Your task to perform on an android device: install app "Firefox Browser" Image 0: 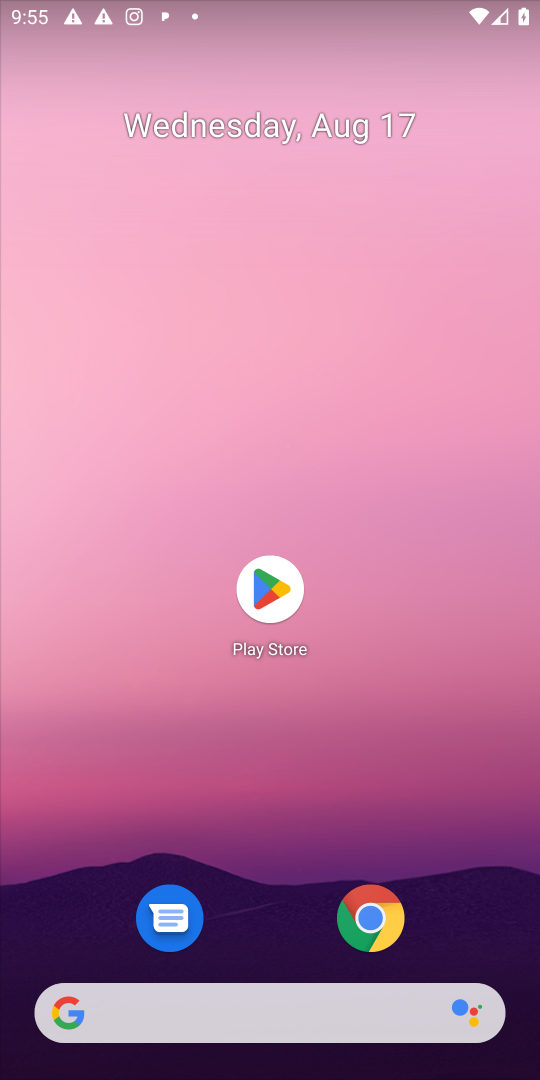
Step 0: press home button
Your task to perform on an android device: install app "Firefox Browser" Image 1: 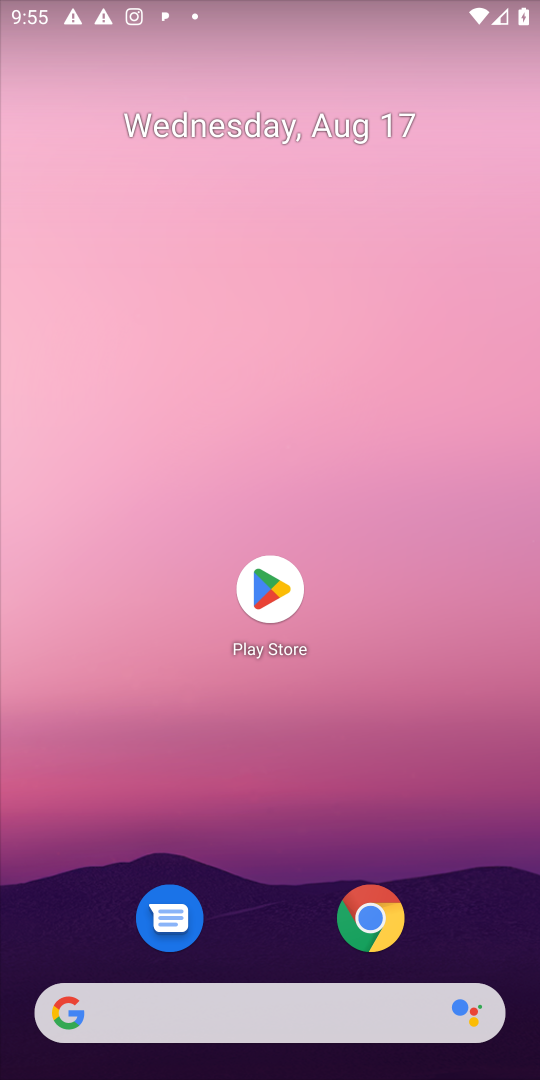
Step 1: click (265, 587)
Your task to perform on an android device: install app "Firefox Browser" Image 2: 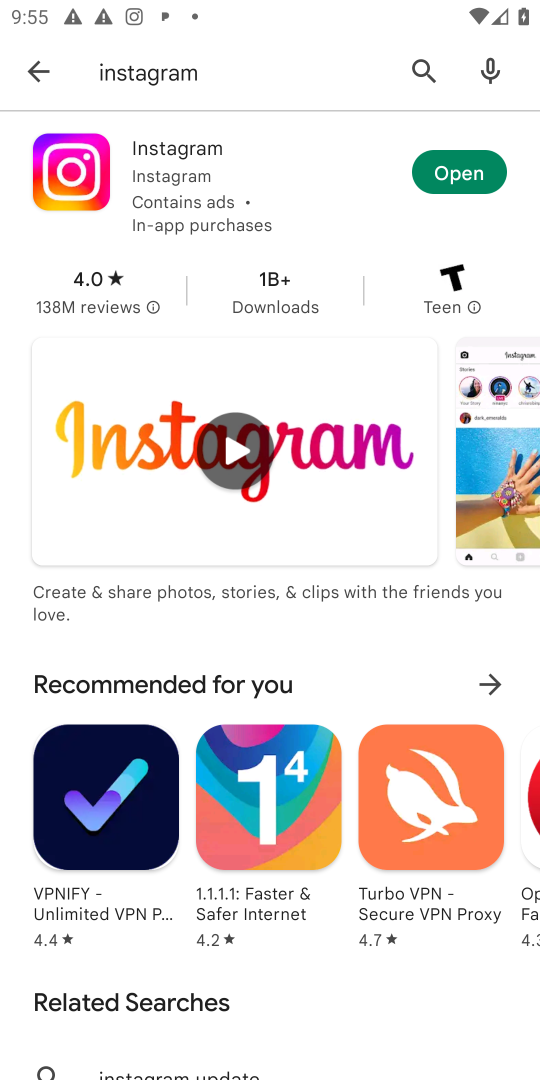
Step 2: click (422, 60)
Your task to perform on an android device: install app "Firefox Browser" Image 3: 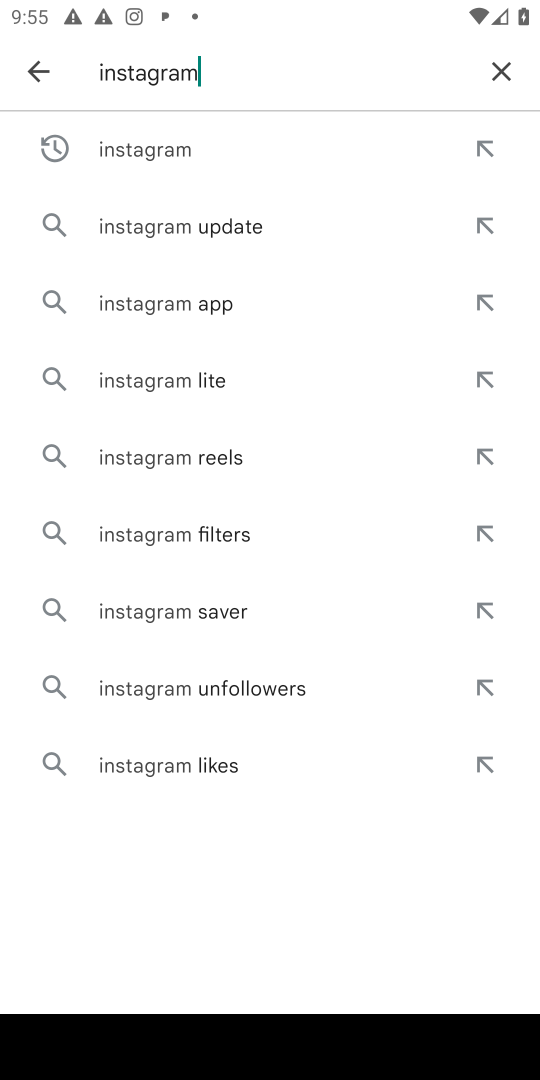
Step 3: click (507, 67)
Your task to perform on an android device: install app "Firefox Browser" Image 4: 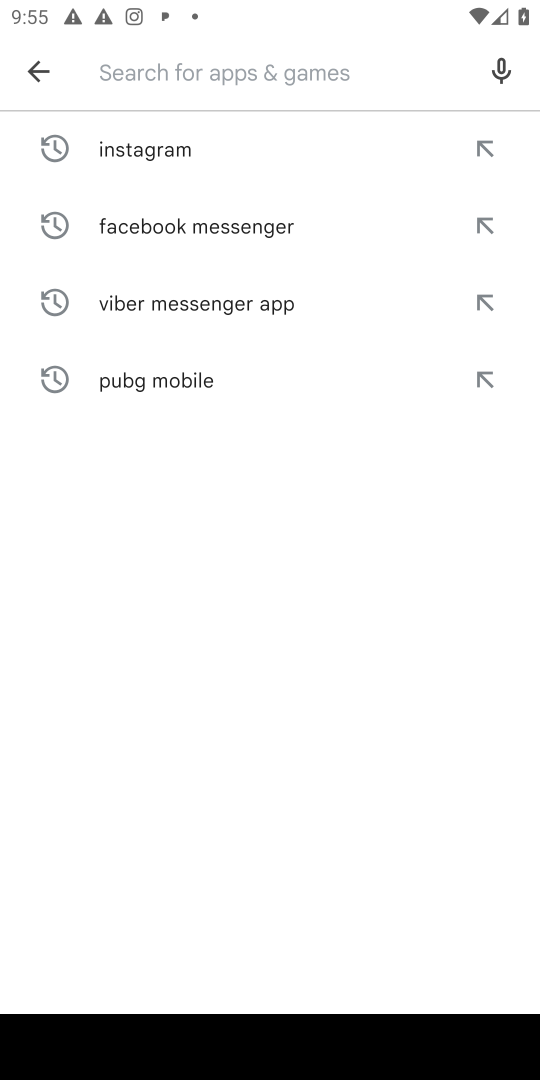
Step 4: type "Firefox Browser"
Your task to perform on an android device: install app "Firefox Browser" Image 5: 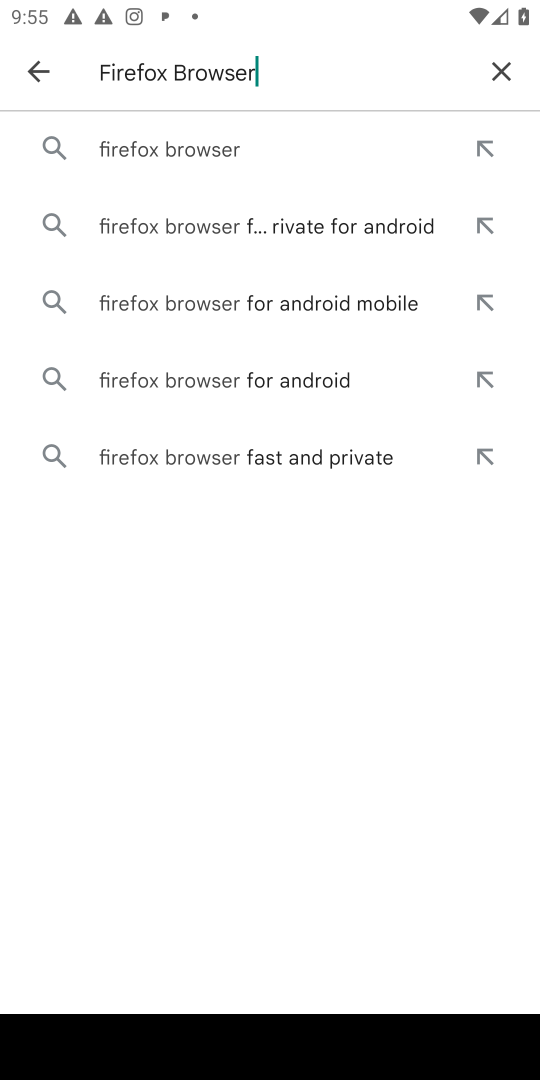
Step 5: click (211, 158)
Your task to perform on an android device: install app "Firefox Browser" Image 6: 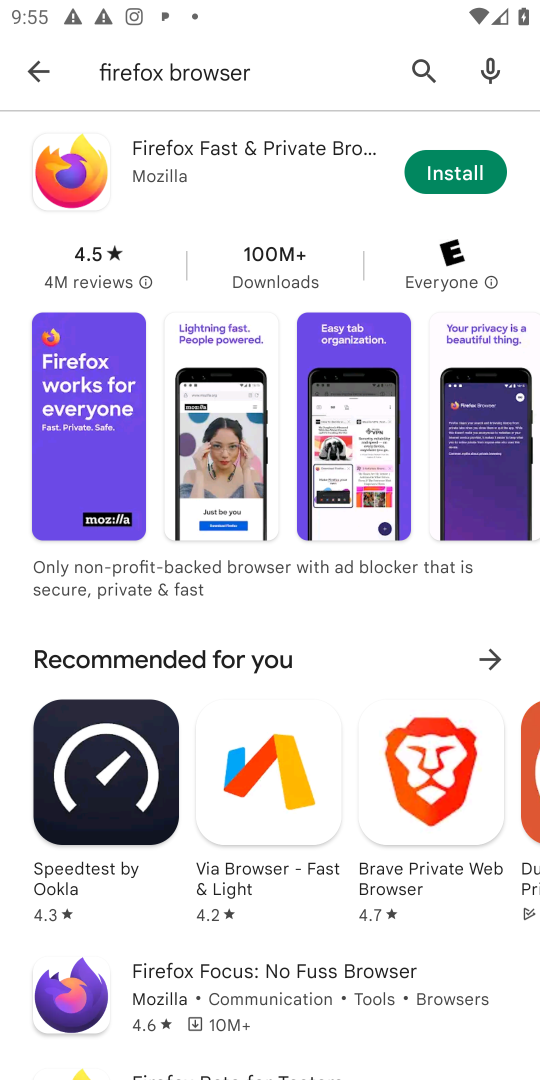
Step 6: click (451, 163)
Your task to perform on an android device: install app "Firefox Browser" Image 7: 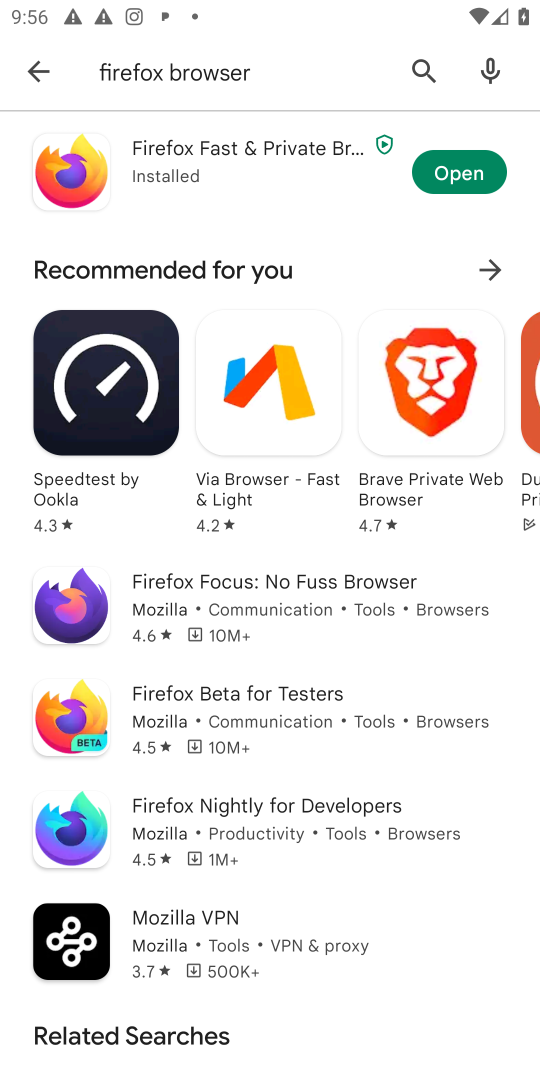
Step 7: task complete